Your task to perform on an android device: Add apple airpods to the cart on newegg.com Image 0: 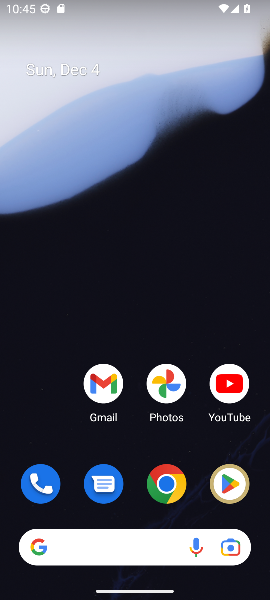
Step 0: click (157, 487)
Your task to perform on an android device: Add apple airpods to the cart on newegg.com Image 1: 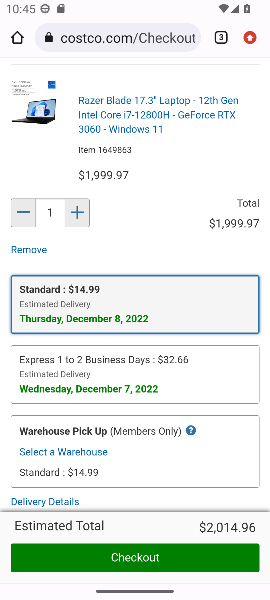
Step 1: click (100, 33)
Your task to perform on an android device: Add apple airpods to the cart on newegg.com Image 2: 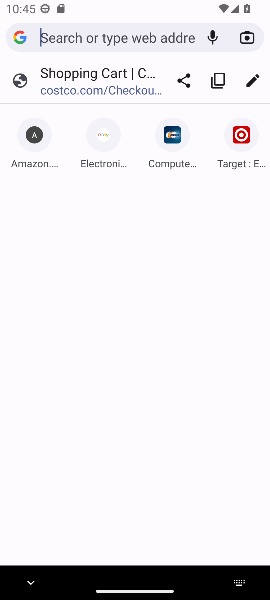
Step 2: click (174, 150)
Your task to perform on an android device: Add apple airpods to the cart on newegg.com Image 3: 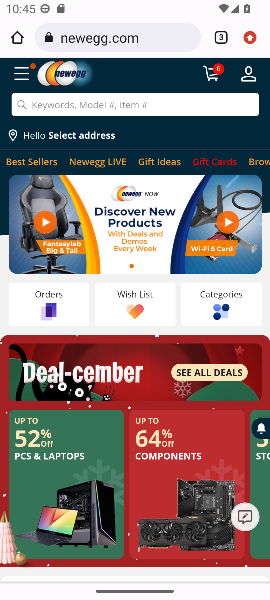
Step 3: click (82, 110)
Your task to perform on an android device: Add apple airpods to the cart on newegg.com Image 4: 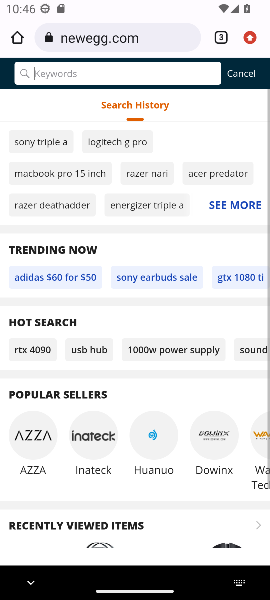
Step 4: type "apple airpods"
Your task to perform on an android device: Add apple airpods to the cart on newegg.com Image 5: 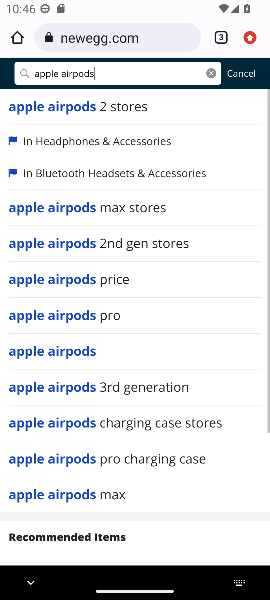
Step 5: click (46, 351)
Your task to perform on an android device: Add apple airpods to the cart on newegg.com Image 6: 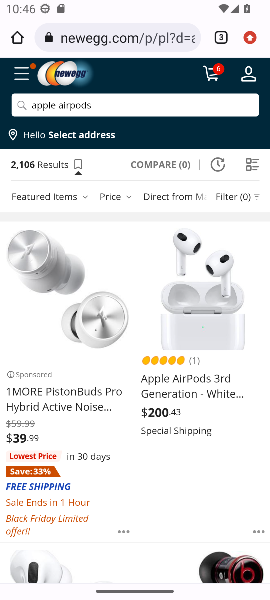
Step 6: click (217, 378)
Your task to perform on an android device: Add apple airpods to the cart on newegg.com Image 7: 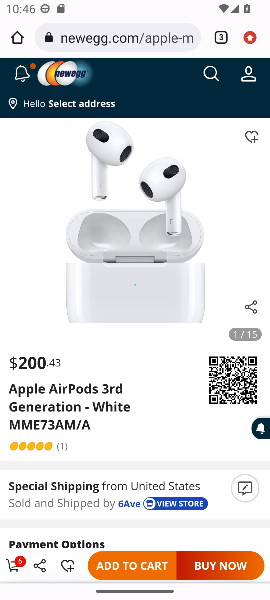
Step 7: click (144, 562)
Your task to perform on an android device: Add apple airpods to the cart on newegg.com Image 8: 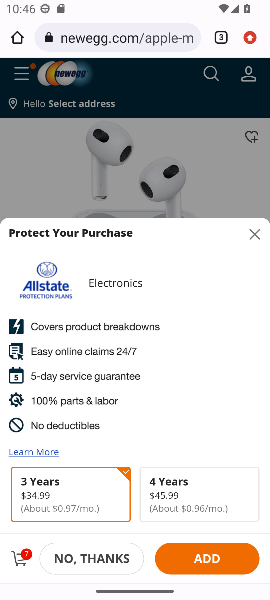
Step 8: task complete